Your task to perform on an android device: What's on my calendar tomorrow? Image 0: 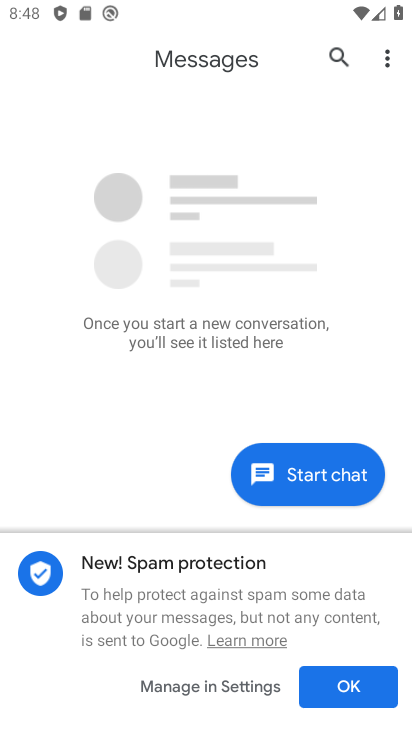
Step 0: click (80, 687)
Your task to perform on an android device: What's on my calendar tomorrow? Image 1: 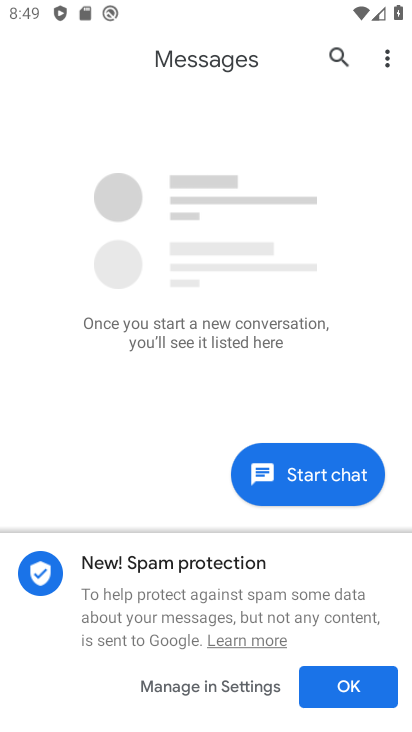
Step 1: press home button
Your task to perform on an android device: What's on my calendar tomorrow? Image 2: 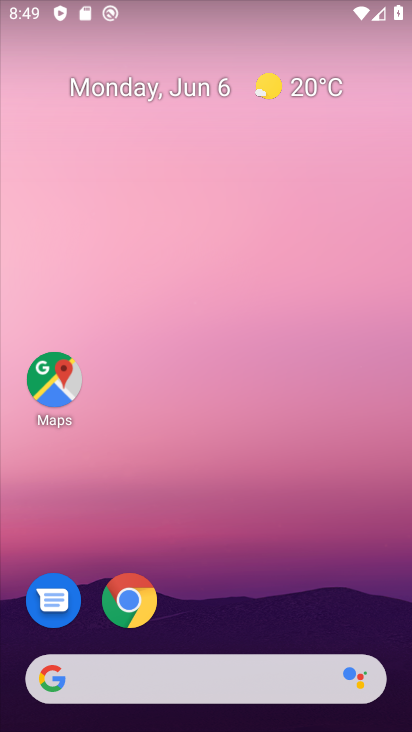
Step 2: drag from (82, 478) to (268, 110)
Your task to perform on an android device: What's on my calendar tomorrow? Image 3: 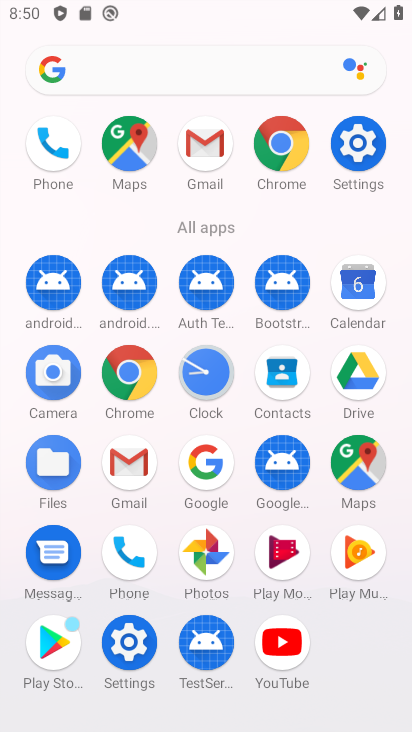
Step 3: click (340, 298)
Your task to perform on an android device: What's on my calendar tomorrow? Image 4: 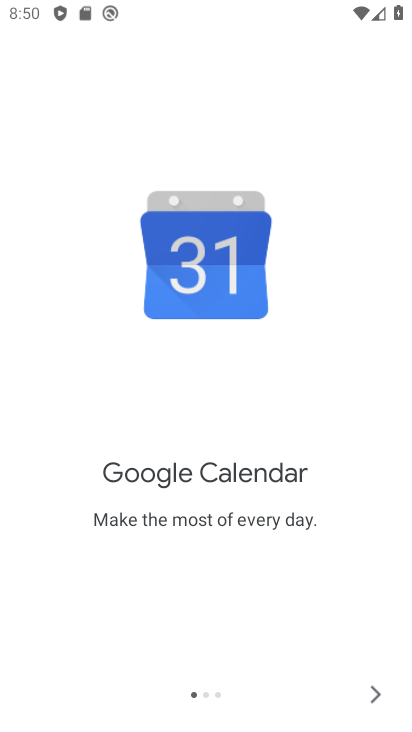
Step 4: click (374, 695)
Your task to perform on an android device: What's on my calendar tomorrow? Image 5: 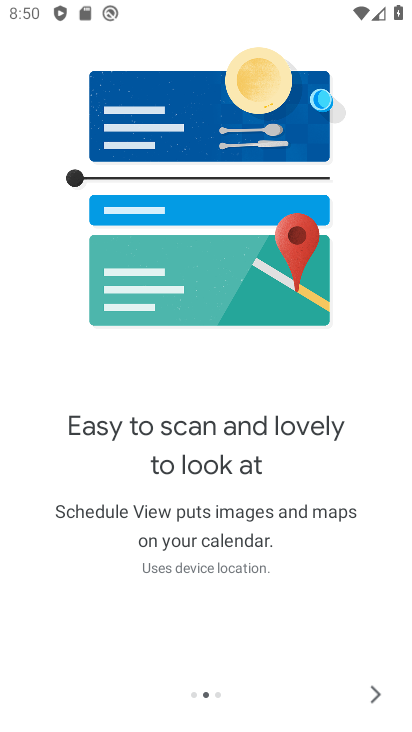
Step 5: click (374, 694)
Your task to perform on an android device: What's on my calendar tomorrow? Image 6: 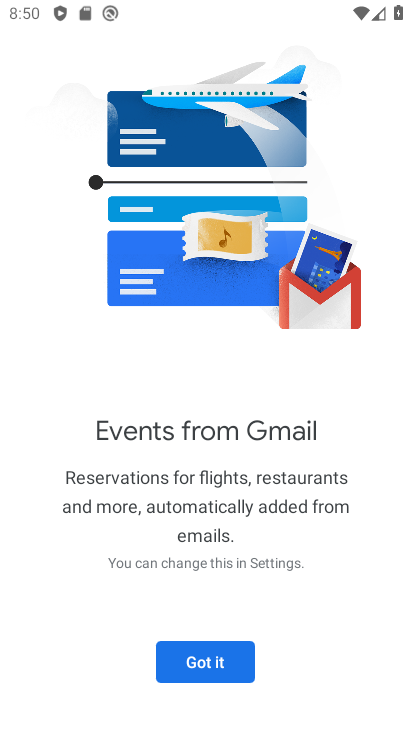
Step 6: click (180, 666)
Your task to perform on an android device: What's on my calendar tomorrow? Image 7: 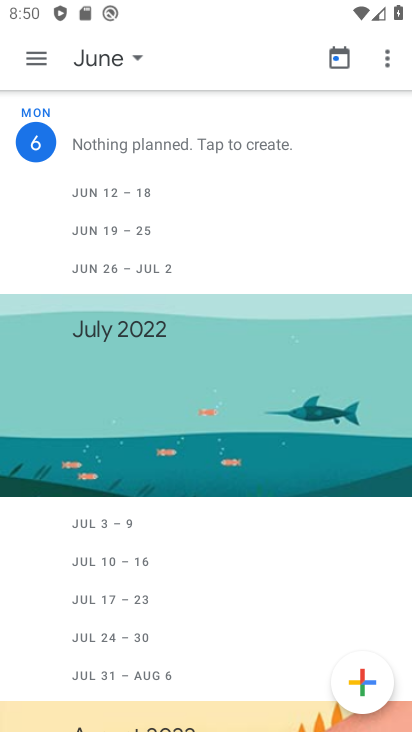
Step 7: click (98, 63)
Your task to perform on an android device: What's on my calendar tomorrow? Image 8: 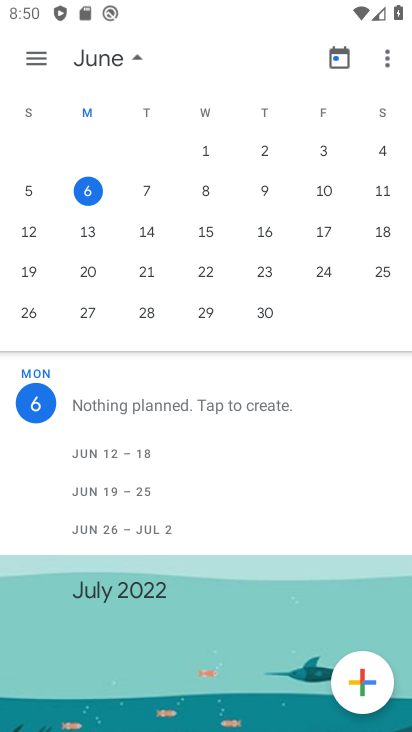
Step 8: click (140, 186)
Your task to perform on an android device: What's on my calendar tomorrow? Image 9: 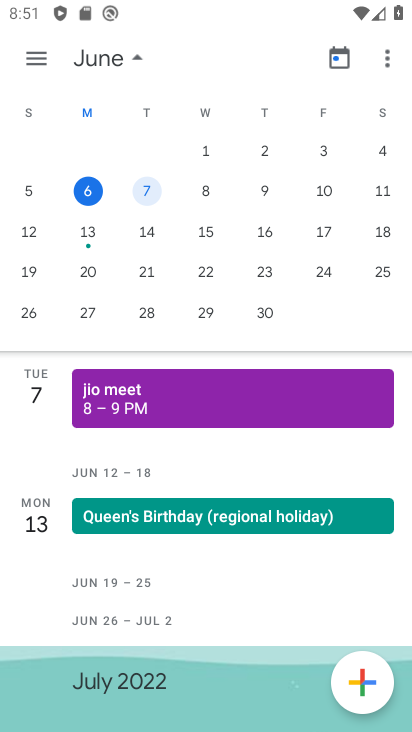
Step 9: task complete